Your task to perform on an android device: Go to sound settings Image 0: 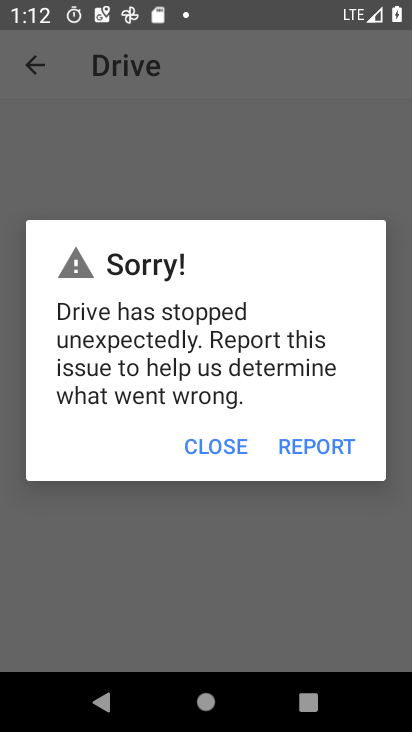
Step 0: press home button
Your task to perform on an android device: Go to sound settings Image 1: 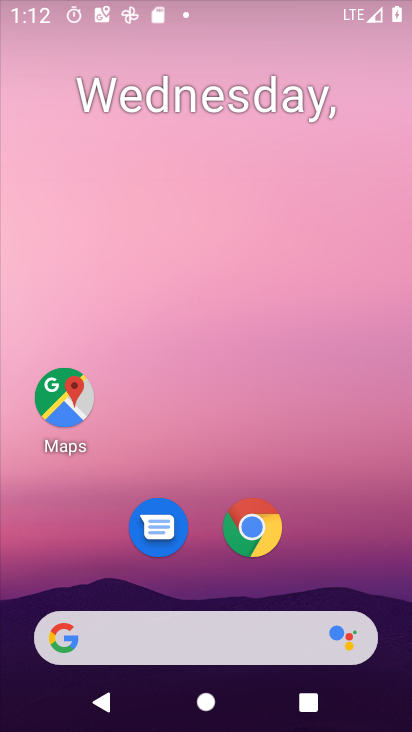
Step 1: drag from (284, 636) to (208, 1)
Your task to perform on an android device: Go to sound settings Image 2: 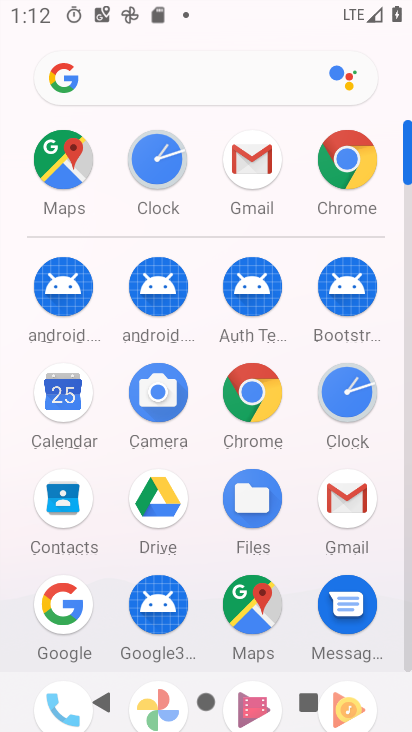
Step 2: drag from (312, 645) to (296, 301)
Your task to perform on an android device: Go to sound settings Image 3: 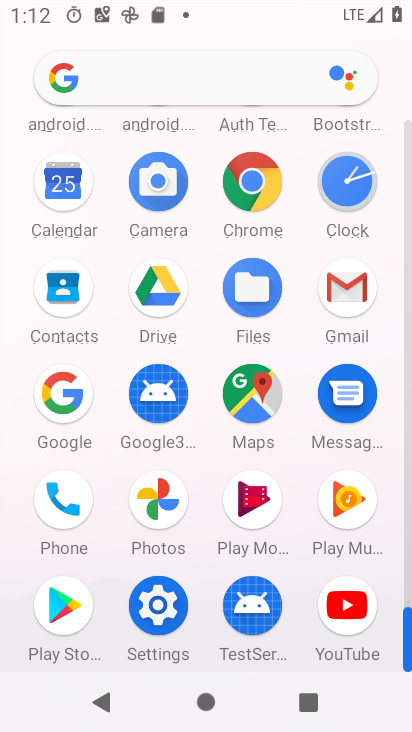
Step 3: click (160, 605)
Your task to perform on an android device: Go to sound settings Image 4: 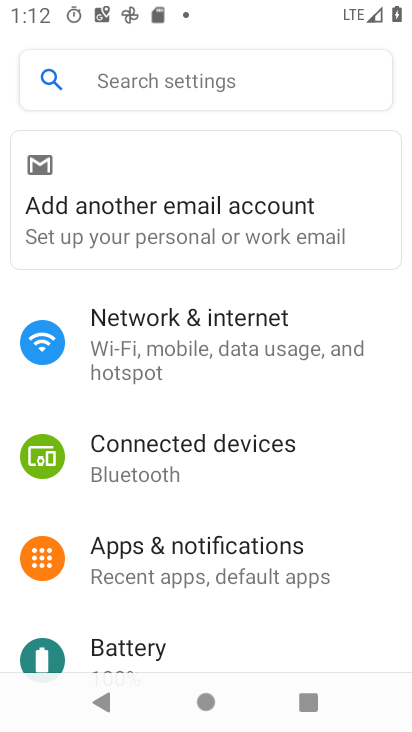
Step 4: drag from (225, 665) to (210, 168)
Your task to perform on an android device: Go to sound settings Image 5: 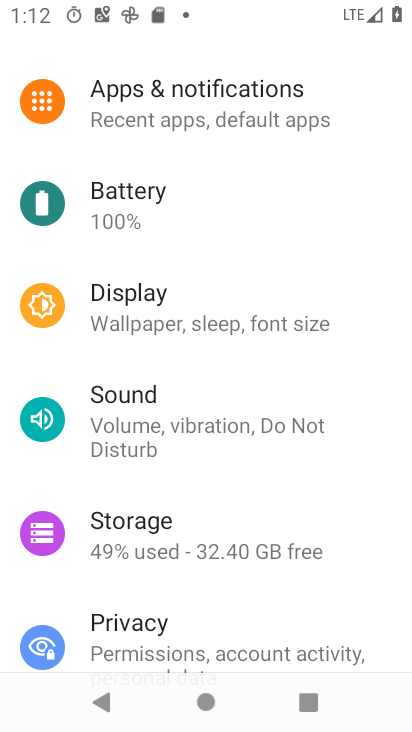
Step 5: click (207, 423)
Your task to perform on an android device: Go to sound settings Image 6: 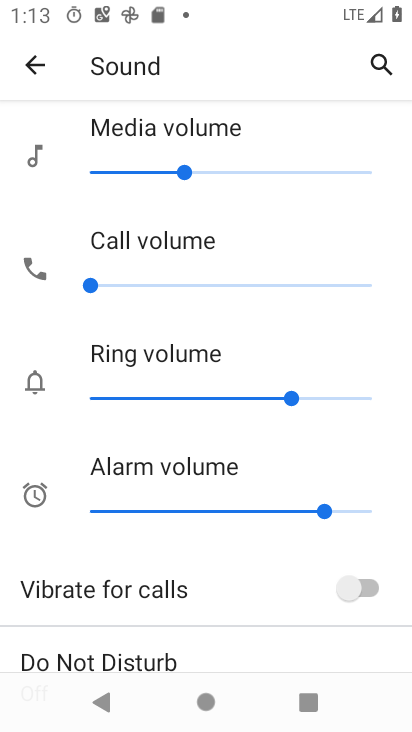
Step 6: task complete